Your task to perform on an android device: turn on improve location accuracy Image 0: 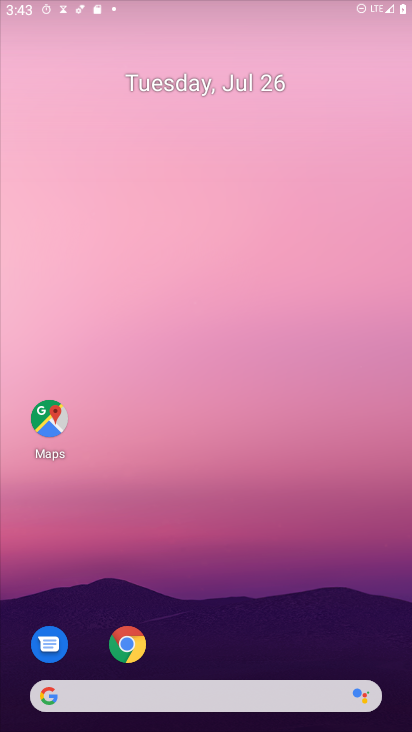
Step 0: press home button
Your task to perform on an android device: turn on improve location accuracy Image 1: 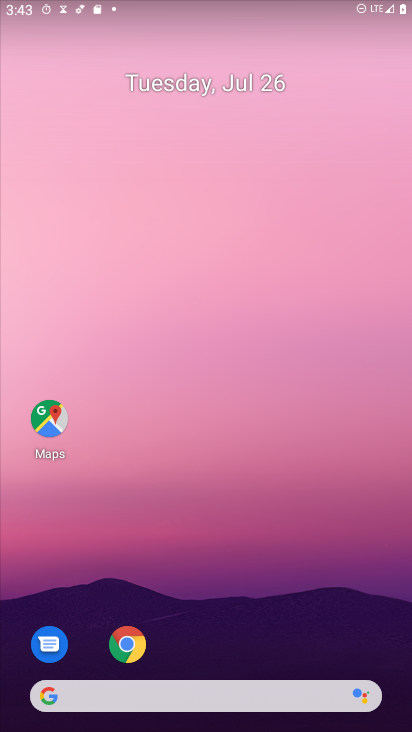
Step 1: drag from (293, 623) to (289, 98)
Your task to perform on an android device: turn on improve location accuracy Image 2: 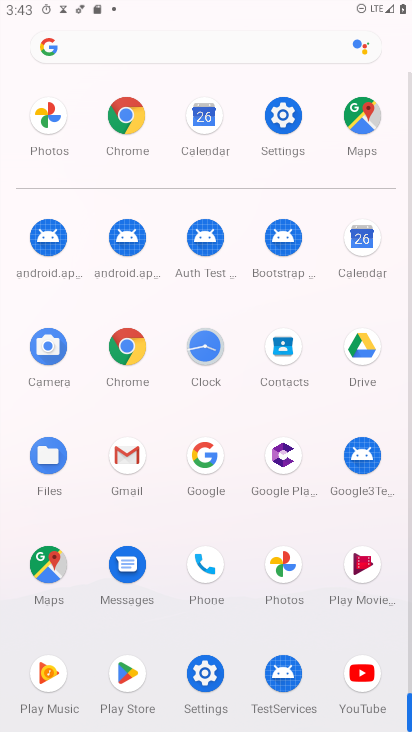
Step 2: click (290, 118)
Your task to perform on an android device: turn on improve location accuracy Image 3: 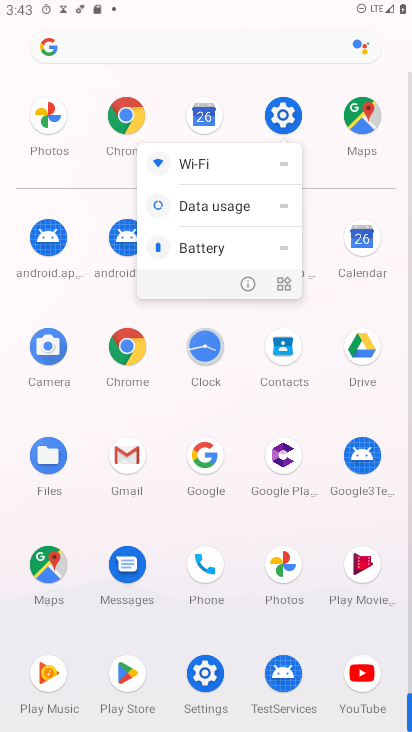
Step 3: click (279, 111)
Your task to perform on an android device: turn on improve location accuracy Image 4: 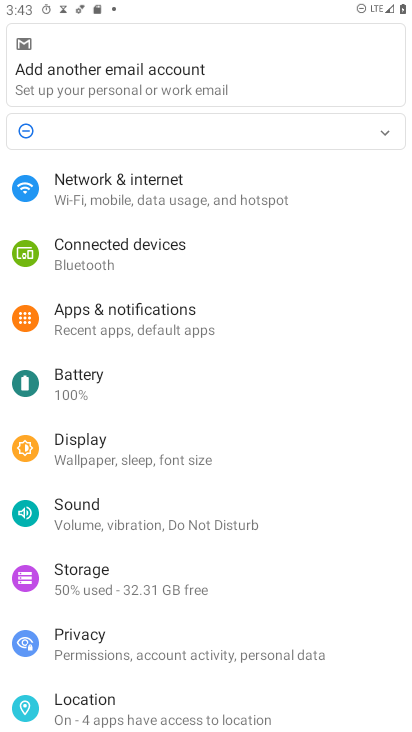
Step 4: click (120, 700)
Your task to perform on an android device: turn on improve location accuracy Image 5: 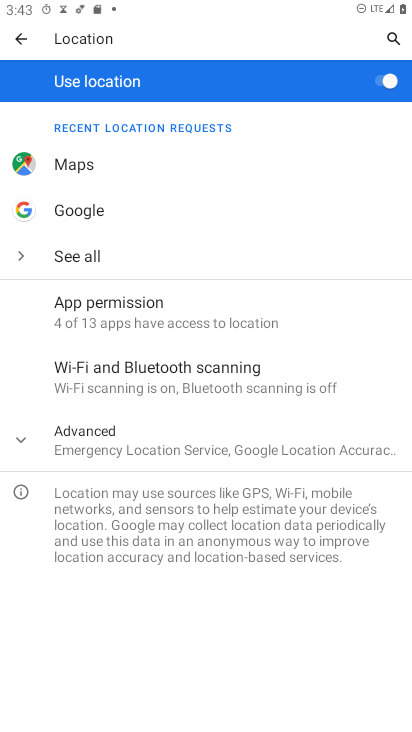
Step 5: click (20, 440)
Your task to perform on an android device: turn on improve location accuracy Image 6: 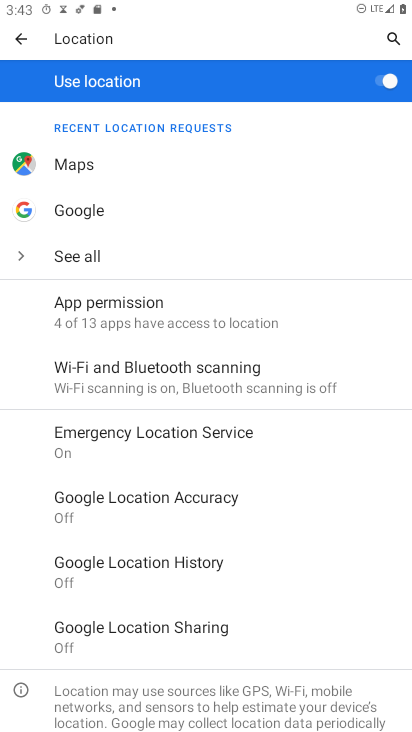
Step 6: click (136, 495)
Your task to perform on an android device: turn on improve location accuracy Image 7: 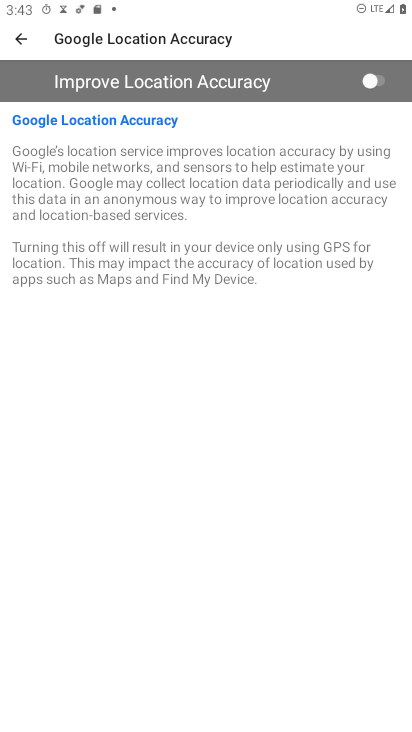
Step 7: click (371, 76)
Your task to perform on an android device: turn on improve location accuracy Image 8: 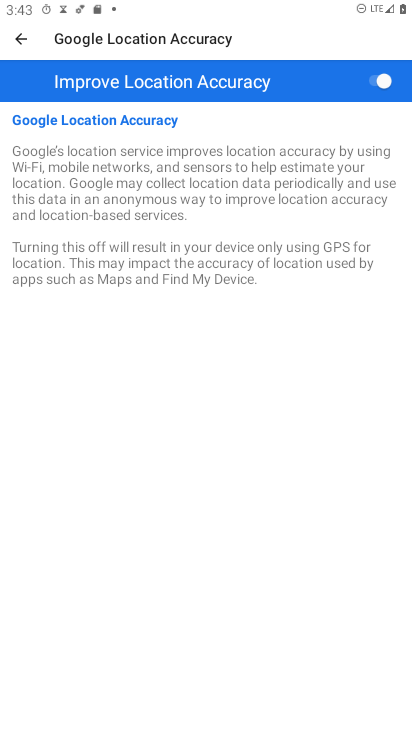
Step 8: task complete